Your task to perform on an android device: move a message to another label in the gmail app Image 0: 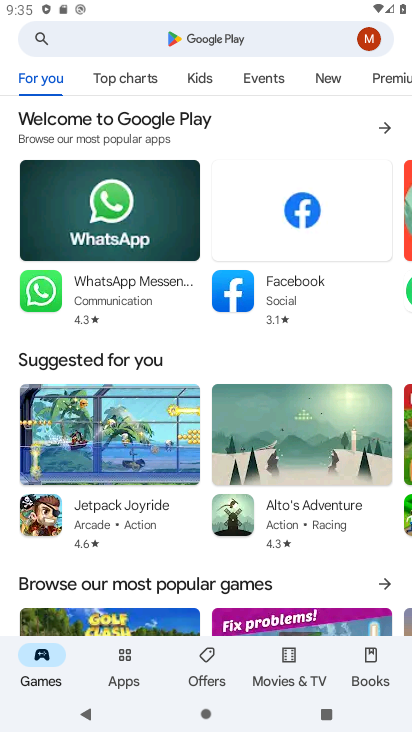
Step 0: press back button
Your task to perform on an android device: move a message to another label in the gmail app Image 1: 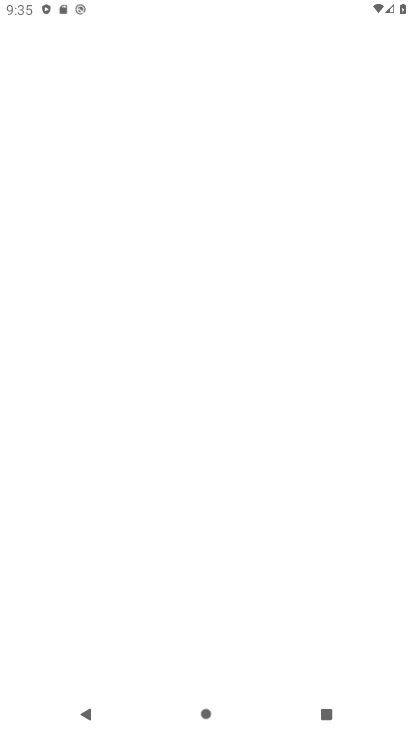
Step 1: press back button
Your task to perform on an android device: move a message to another label in the gmail app Image 2: 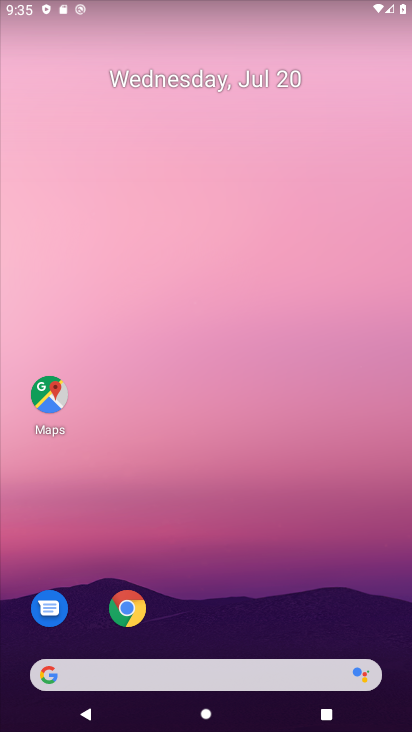
Step 2: drag from (237, 661) to (260, 84)
Your task to perform on an android device: move a message to another label in the gmail app Image 3: 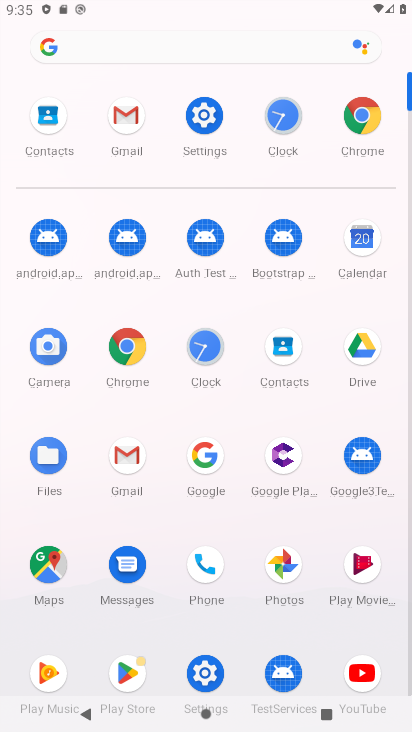
Step 3: click (135, 439)
Your task to perform on an android device: move a message to another label in the gmail app Image 4: 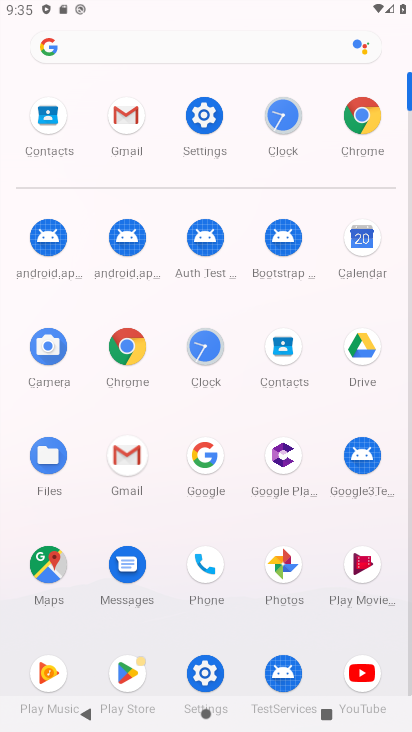
Step 4: click (126, 458)
Your task to perform on an android device: move a message to another label in the gmail app Image 5: 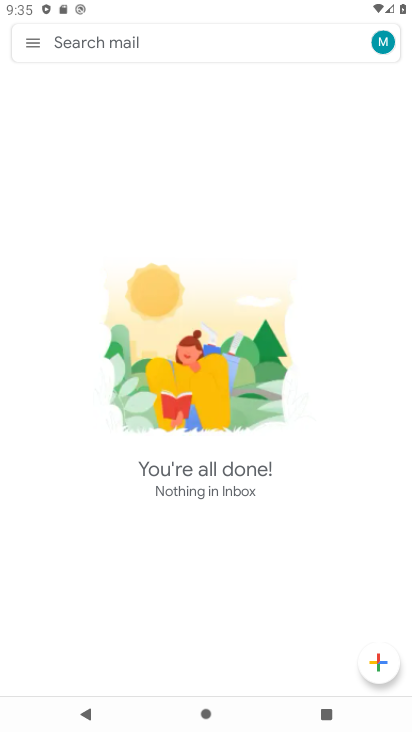
Step 5: press back button
Your task to perform on an android device: move a message to another label in the gmail app Image 6: 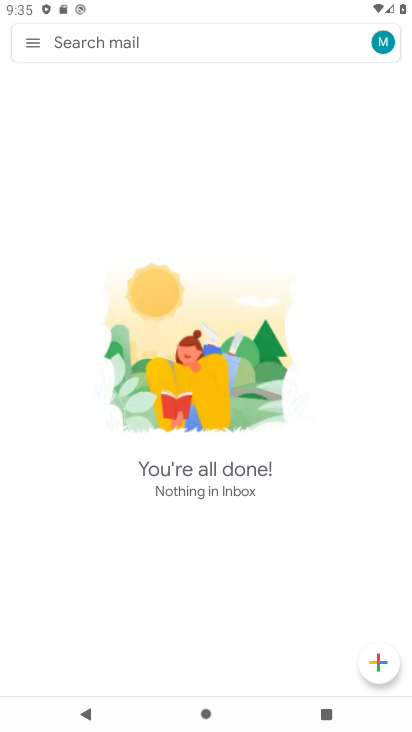
Step 6: press back button
Your task to perform on an android device: move a message to another label in the gmail app Image 7: 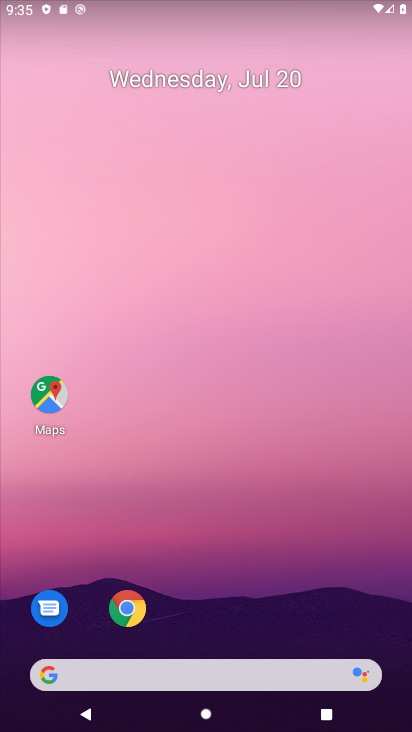
Step 7: click (29, 38)
Your task to perform on an android device: move a message to another label in the gmail app Image 8: 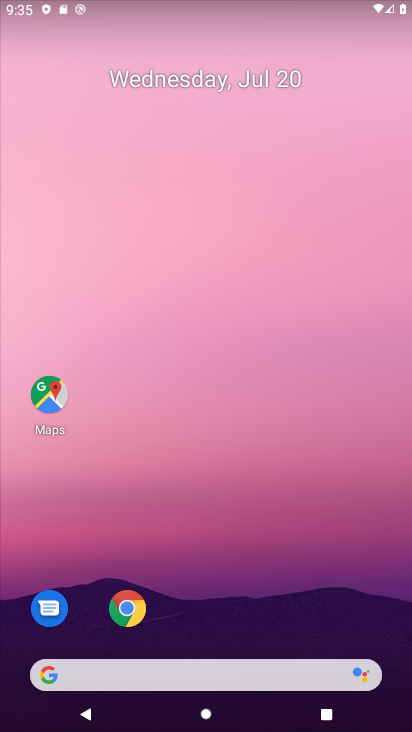
Step 8: drag from (183, 550) to (178, 202)
Your task to perform on an android device: move a message to another label in the gmail app Image 9: 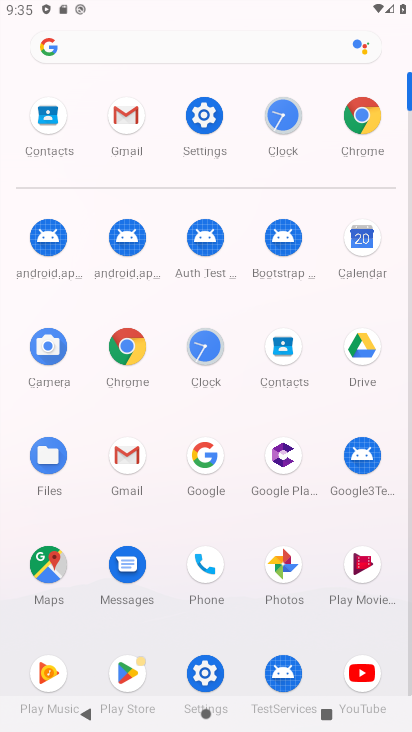
Step 9: click (120, 105)
Your task to perform on an android device: move a message to another label in the gmail app Image 10: 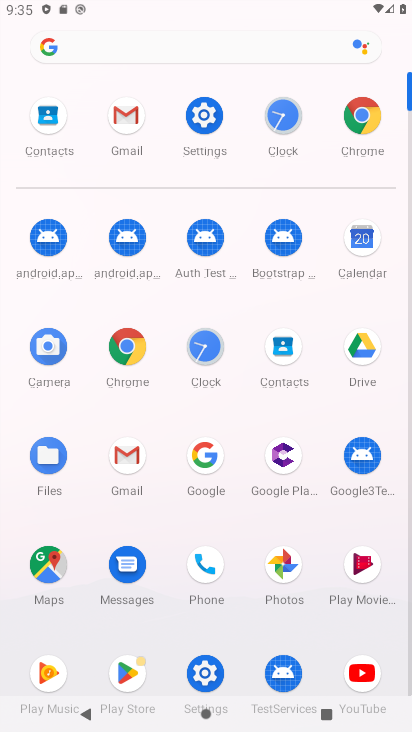
Step 10: click (121, 104)
Your task to perform on an android device: move a message to another label in the gmail app Image 11: 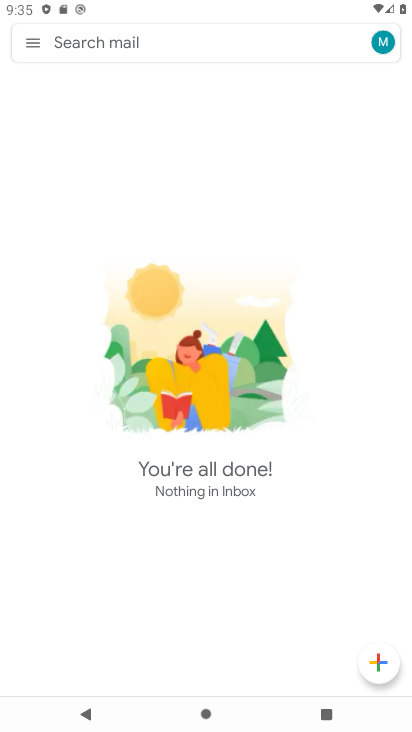
Step 11: click (42, 48)
Your task to perform on an android device: move a message to another label in the gmail app Image 12: 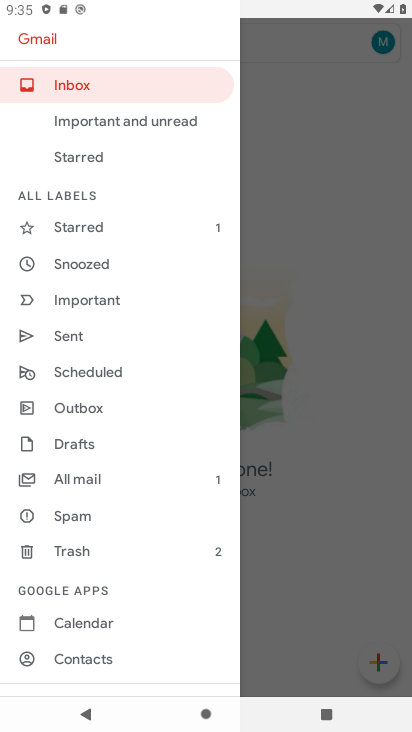
Step 12: click (83, 472)
Your task to perform on an android device: move a message to another label in the gmail app Image 13: 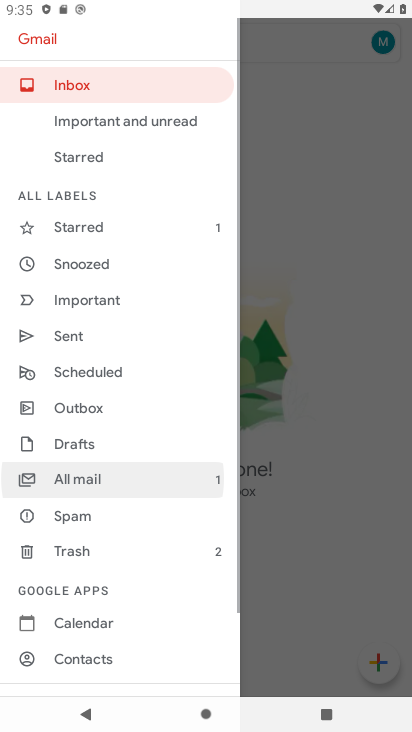
Step 13: click (83, 472)
Your task to perform on an android device: move a message to another label in the gmail app Image 14: 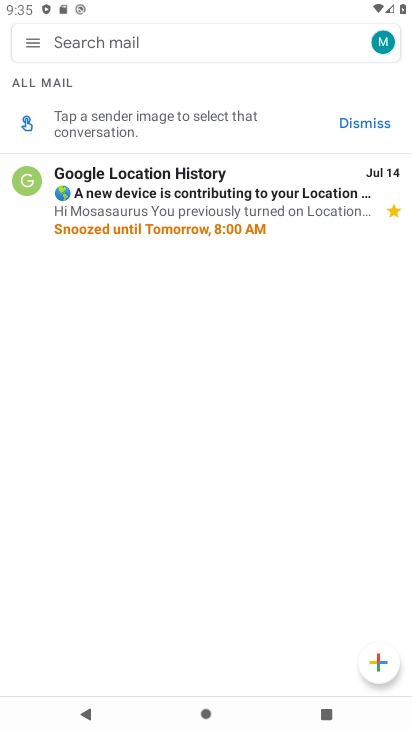
Step 14: click (89, 471)
Your task to perform on an android device: move a message to another label in the gmail app Image 15: 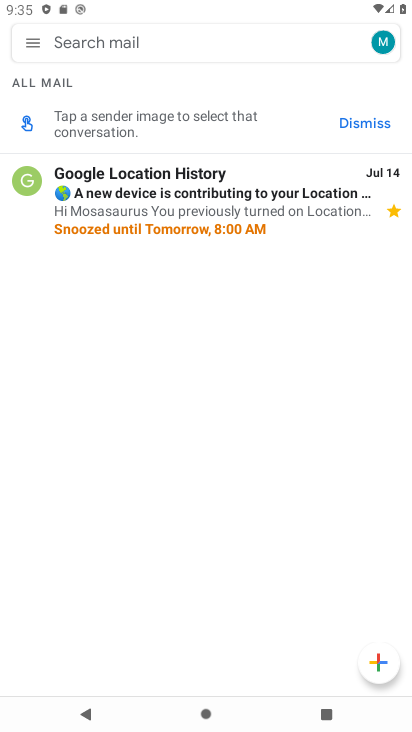
Step 15: click (396, 210)
Your task to perform on an android device: move a message to another label in the gmail app Image 16: 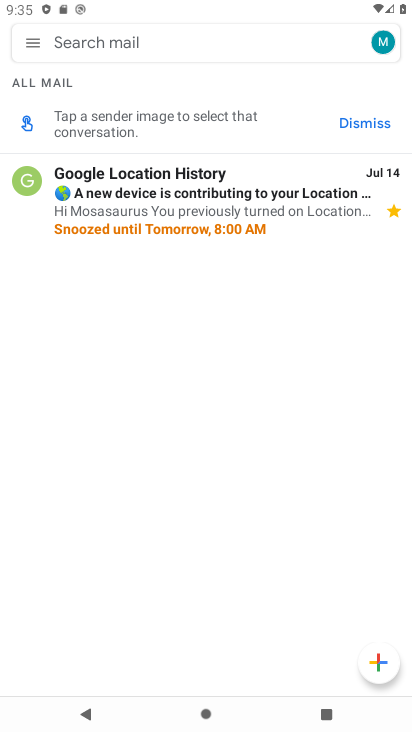
Step 16: click (397, 209)
Your task to perform on an android device: move a message to another label in the gmail app Image 17: 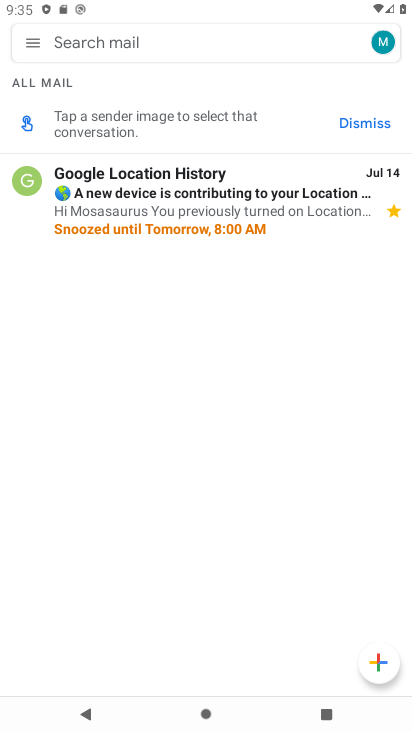
Step 17: click (390, 210)
Your task to perform on an android device: move a message to another label in the gmail app Image 18: 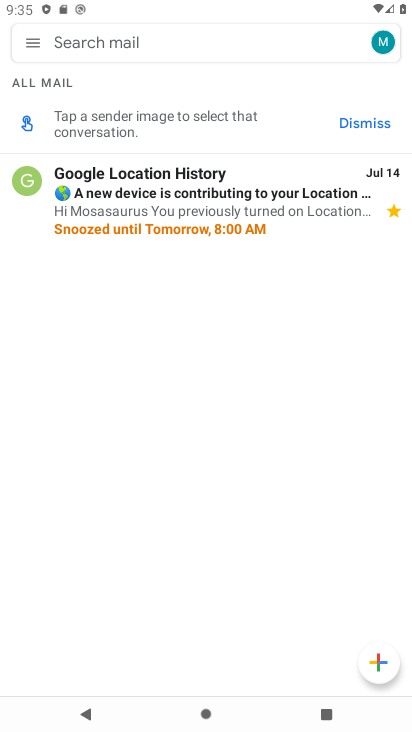
Step 18: click (392, 209)
Your task to perform on an android device: move a message to another label in the gmail app Image 19: 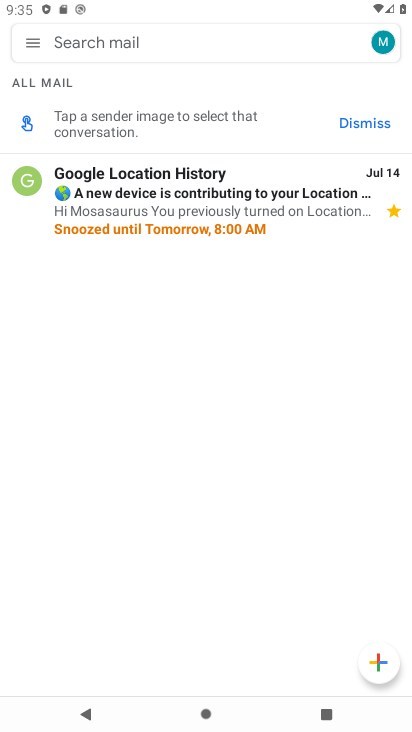
Step 19: click (394, 212)
Your task to perform on an android device: move a message to another label in the gmail app Image 20: 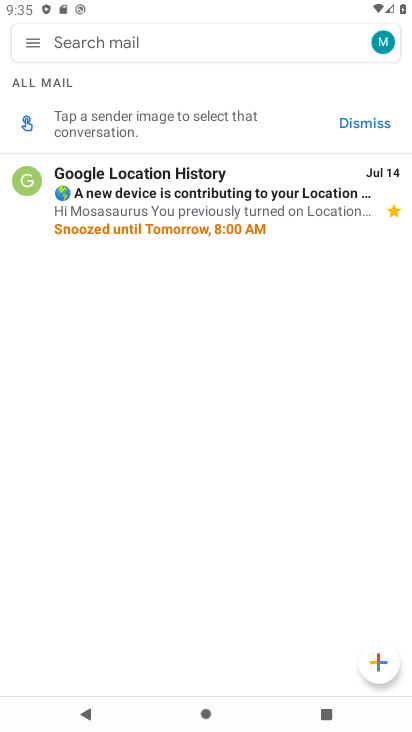
Step 20: click (394, 207)
Your task to perform on an android device: move a message to another label in the gmail app Image 21: 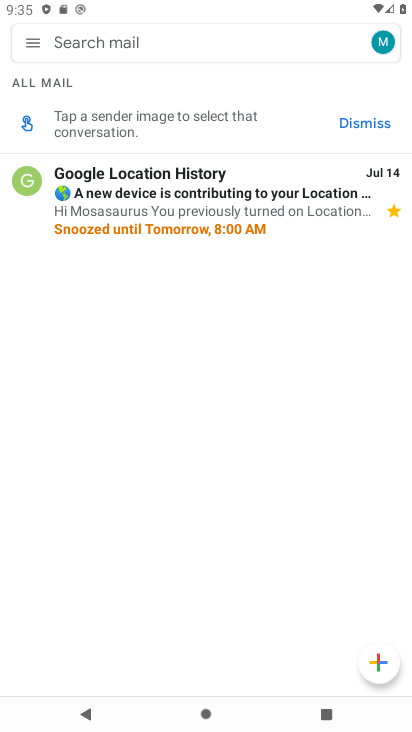
Step 21: click (394, 207)
Your task to perform on an android device: move a message to another label in the gmail app Image 22: 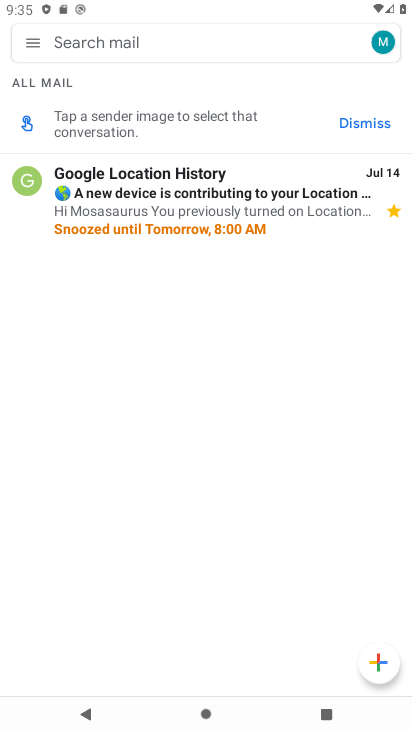
Step 22: click (398, 205)
Your task to perform on an android device: move a message to another label in the gmail app Image 23: 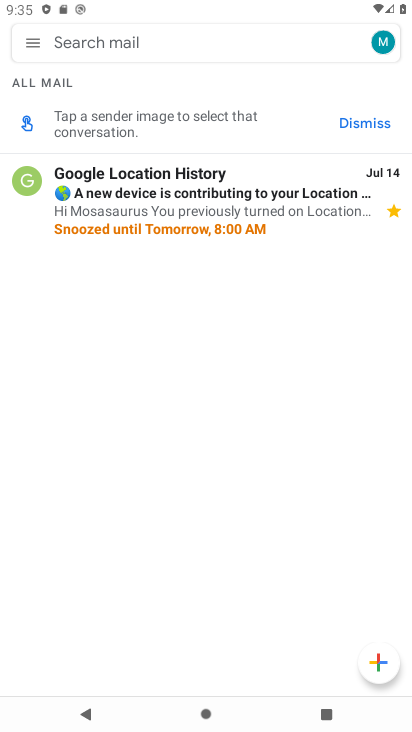
Step 23: click (388, 209)
Your task to perform on an android device: move a message to another label in the gmail app Image 24: 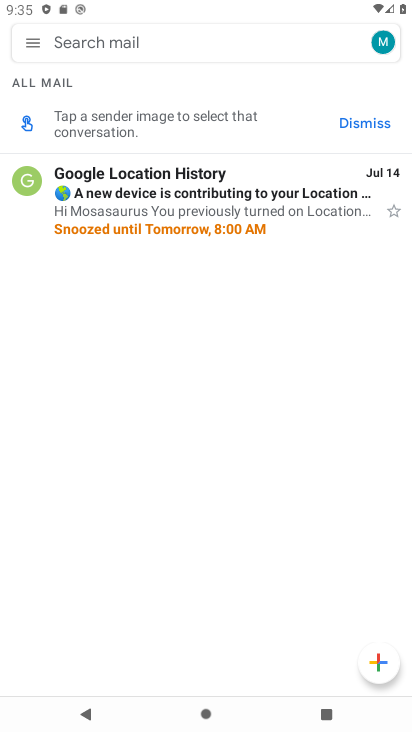
Step 24: click (184, 208)
Your task to perform on an android device: move a message to another label in the gmail app Image 25: 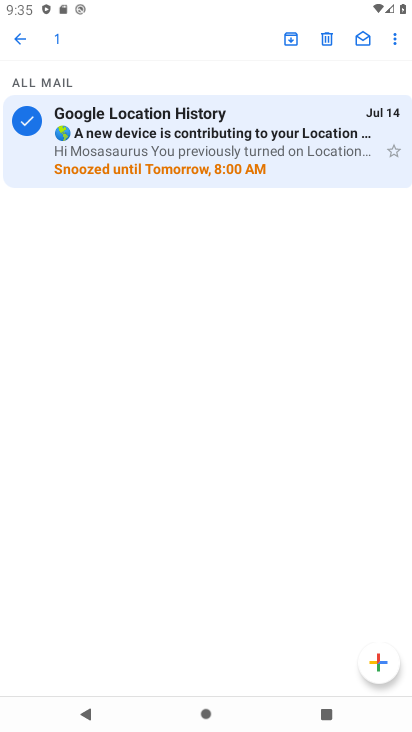
Step 25: click (391, 36)
Your task to perform on an android device: move a message to another label in the gmail app Image 26: 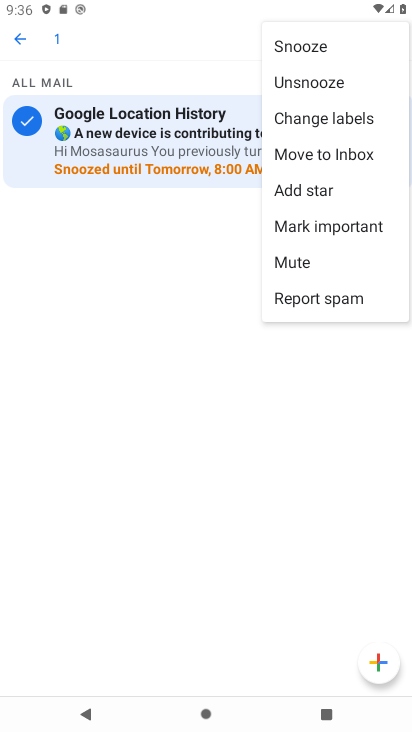
Step 26: click (337, 148)
Your task to perform on an android device: move a message to another label in the gmail app Image 27: 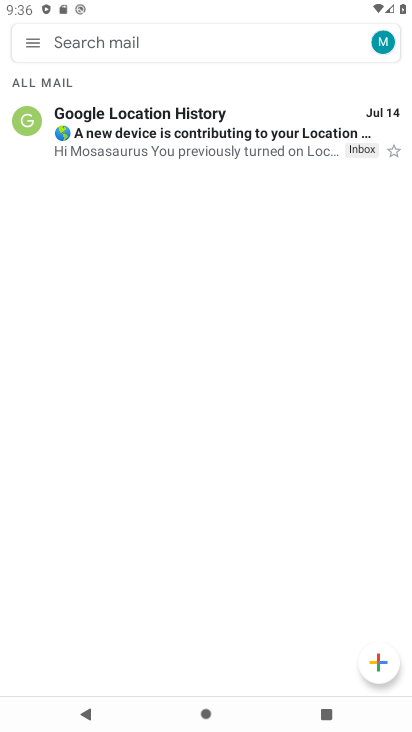
Step 27: task complete